Your task to perform on an android device: Open sound settings Image 0: 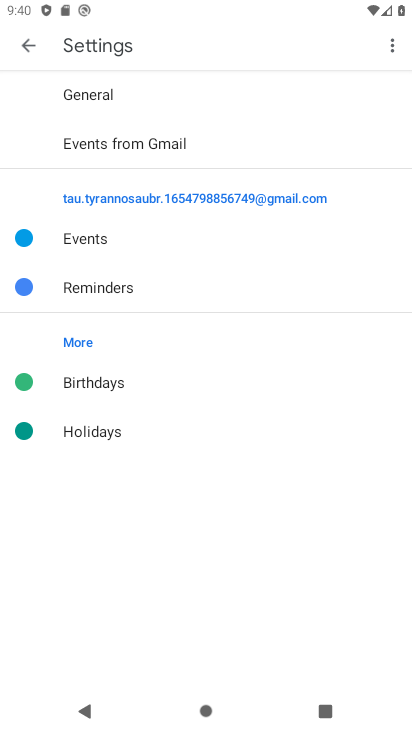
Step 0: press home button
Your task to perform on an android device: Open sound settings Image 1: 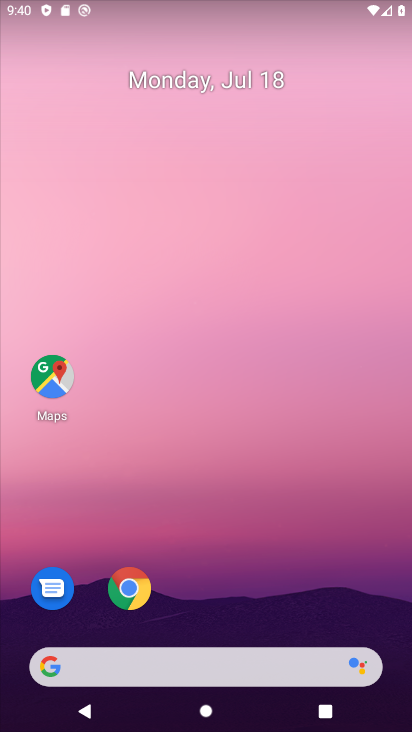
Step 1: drag from (318, 446) to (242, 3)
Your task to perform on an android device: Open sound settings Image 2: 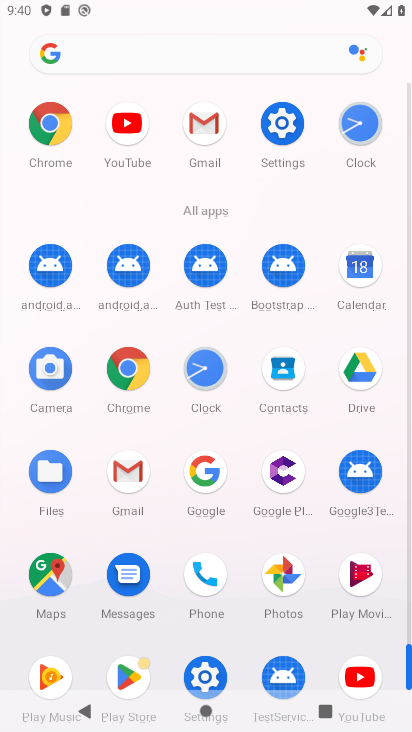
Step 2: click (273, 131)
Your task to perform on an android device: Open sound settings Image 3: 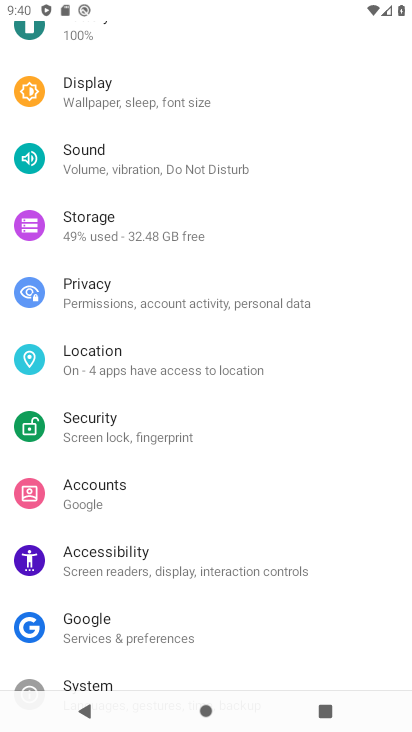
Step 3: click (84, 155)
Your task to perform on an android device: Open sound settings Image 4: 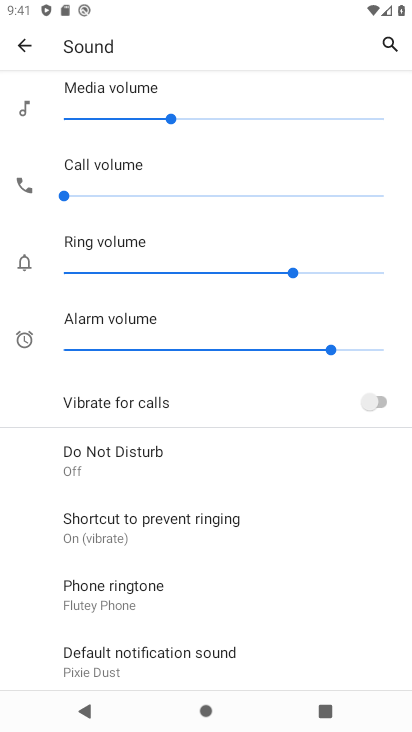
Step 4: task complete